Your task to perform on an android device: choose inbox layout in the gmail app Image 0: 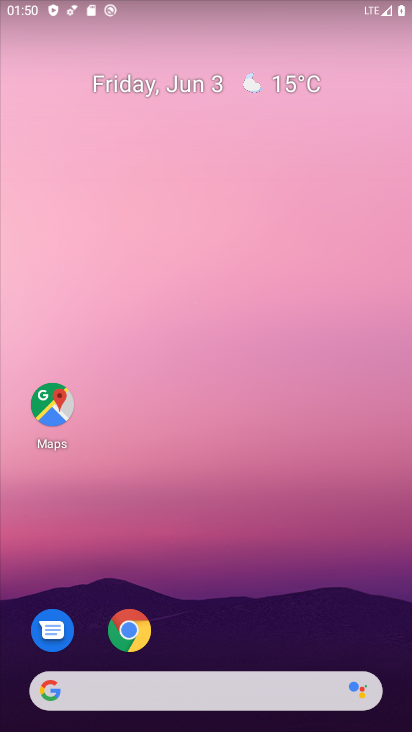
Step 0: drag from (400, 574) to (378, 11)
Your task to perform on an android device: choose inbox layout in the gmail app Image 1: 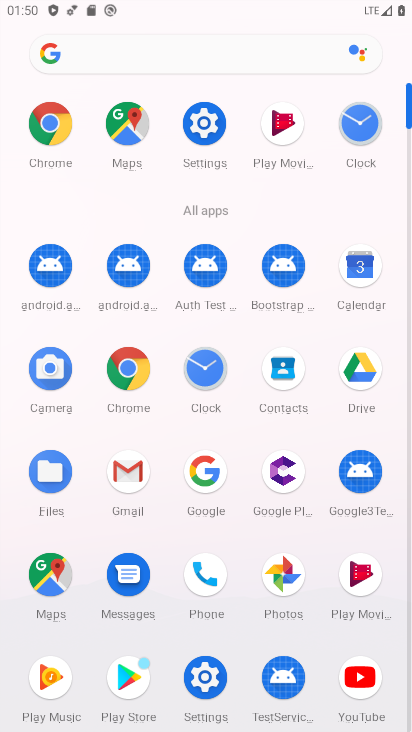
Step 1: click (143, 472)
Your task to perform on an android device: choose inbox layout in the gmail app Image 2: 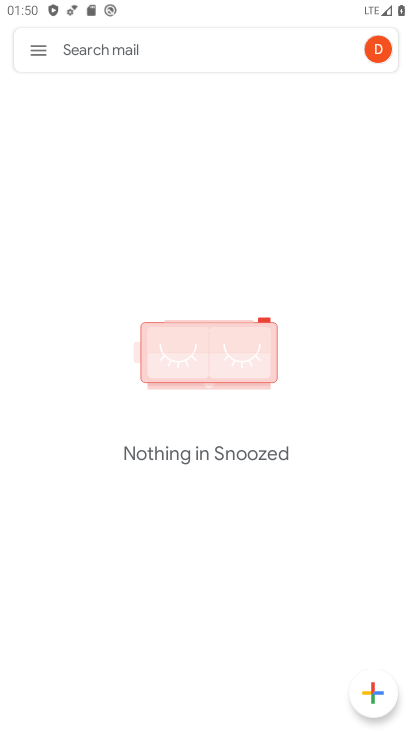
Step 2: click (37, 51)
Your task to perform on an android device: choose inbox layout in the gmail app Image 3: 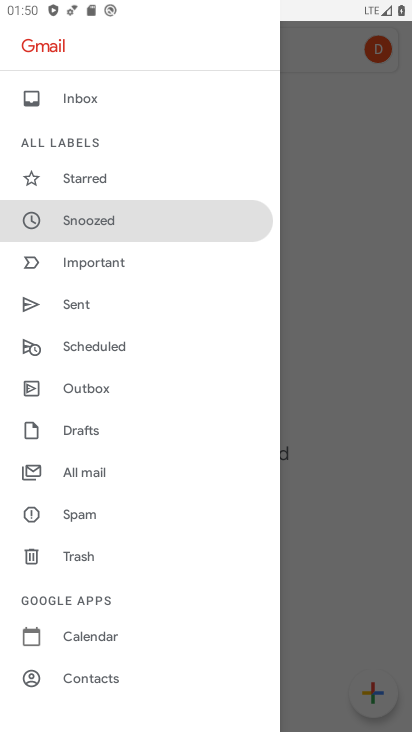
Step 3: click (87, 97)
Your task to perform on an android device: choose inbox layout in the gmail app Image 4: 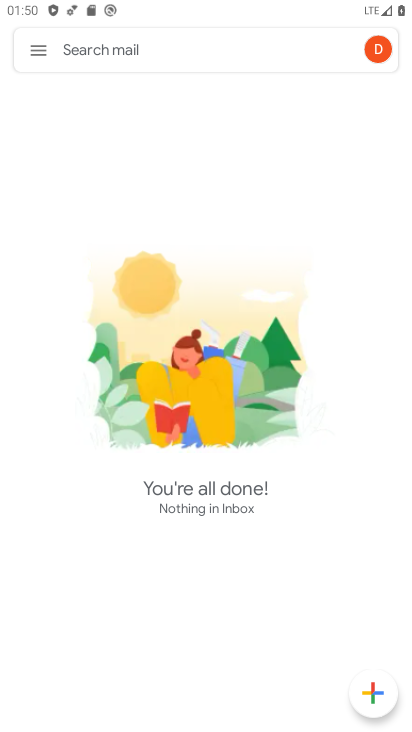
Step 4: task complete